Your task to perform on an android device: move an email to a new category in the gmail app Image 0: 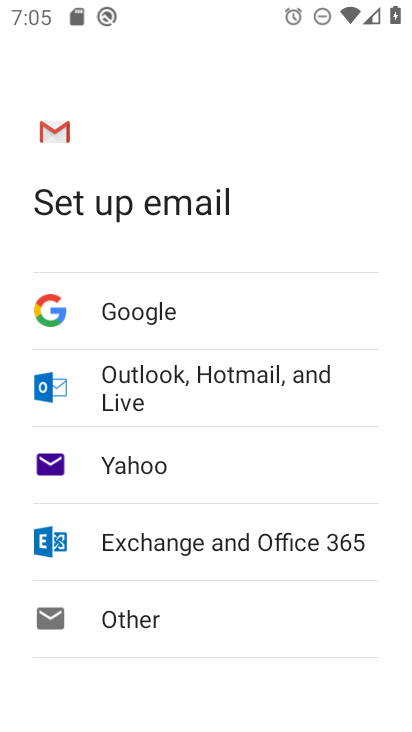
Step 0: press home button
Your task to perform on an android device: move an email to a new category in the gmail app Image 1: 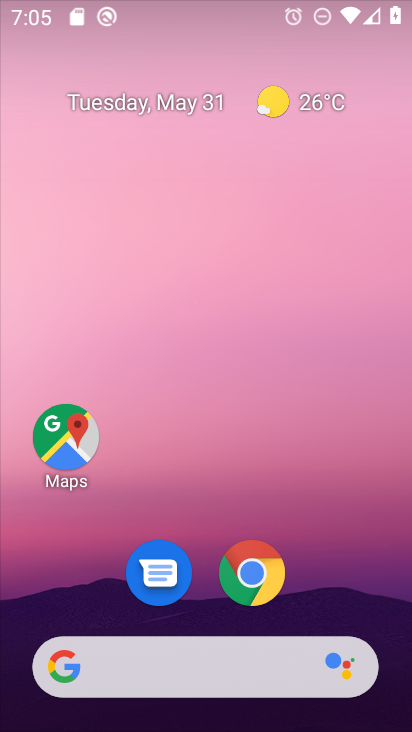
Step 1: drag from (382, 622) to (315, 59)
Your task to perform on an android device: move an email to a new category in the gmail app Image 2: 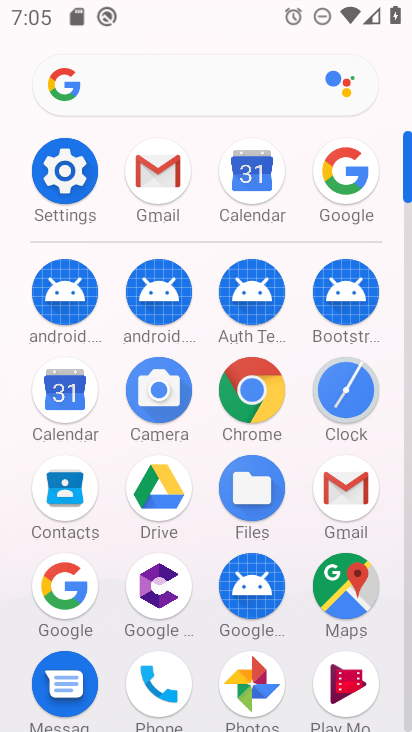
Step 2: click (348, 481)
Your task to perform on an android device: move an email to a new category in the gmail app Image 3: 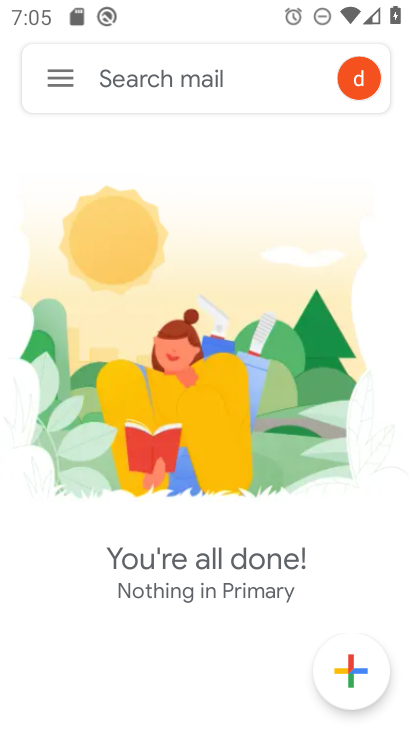
Step 3: task complete